Your task to perform on an android device: What's the weather going to be tomorrow? Image 0: 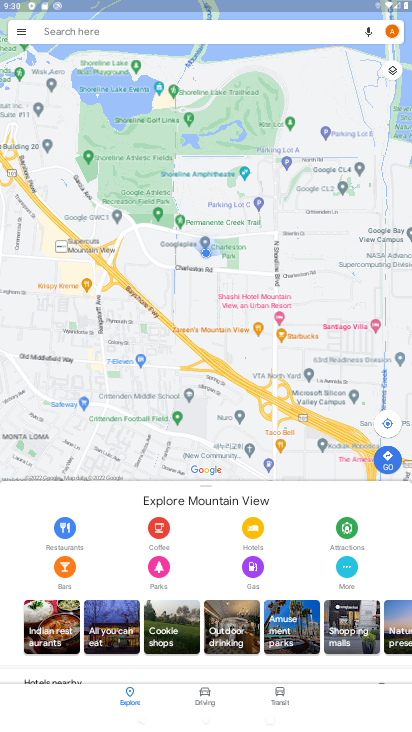
Step 0: press home button
Your task to perform on an android device: What's the weather going to be tomorrow? Image 1: 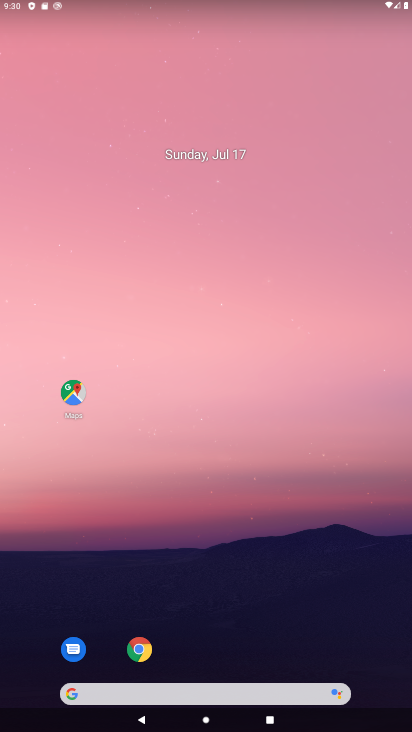
Step 1: click (83, 696)
Your task to perform on an android device: What's the weather going to be tomorrow? Image 2: 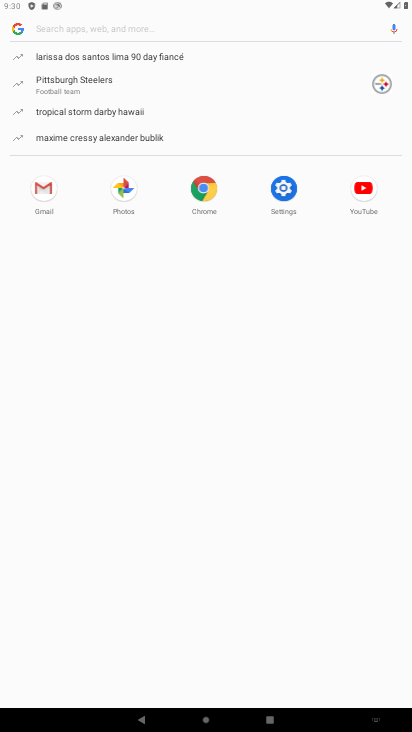
Step 2: type "What's the weather going to be tomorrow?"
Your task to perform on an android device: What's the weather going to be tomorrow? Image 3: 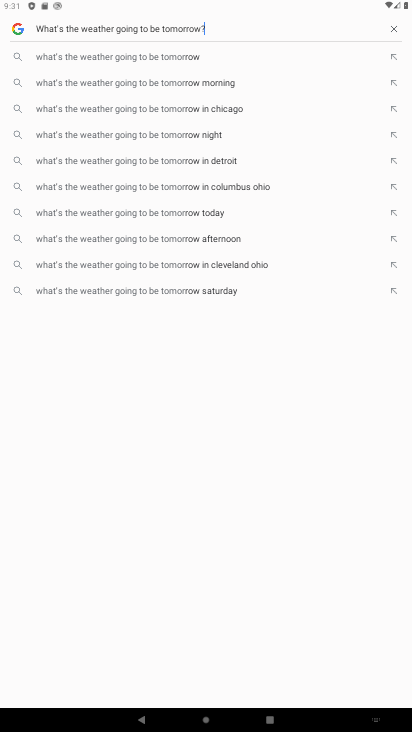
Step 3: type ""
Your task to perform on an android device: What's the weather going to be tomorrow? Image 4: 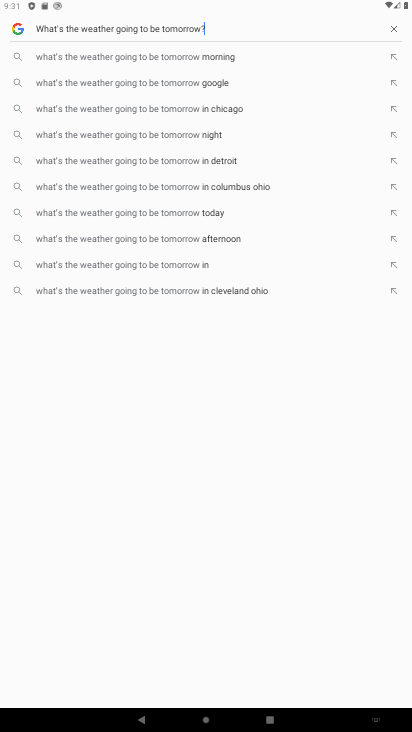
Step 4: task complete